Your task to perform on an android device: check google app version Image 0: 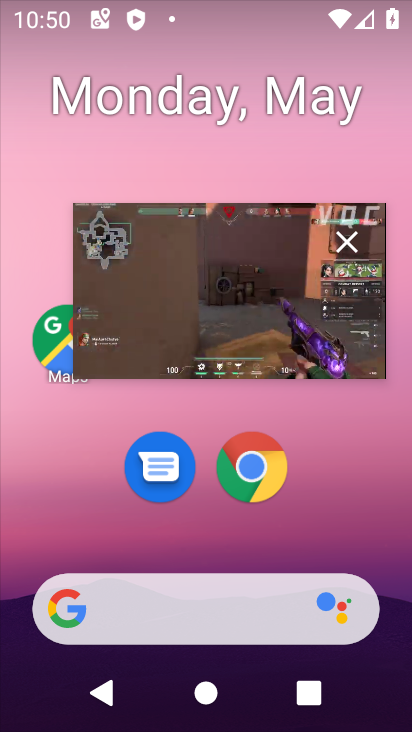
Step 0: click (344, 236)
Your task to perform on an android device: check google app version Image 1: 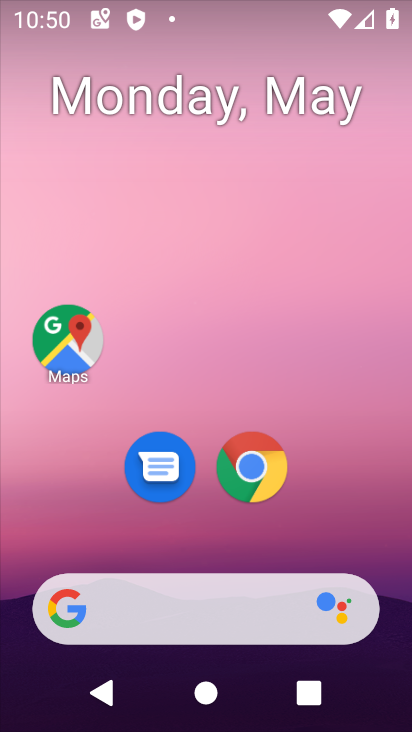
Step 1: drag from (383, 711) to (378, 208)
Your task to perform on an android device: check google app version Image 2: 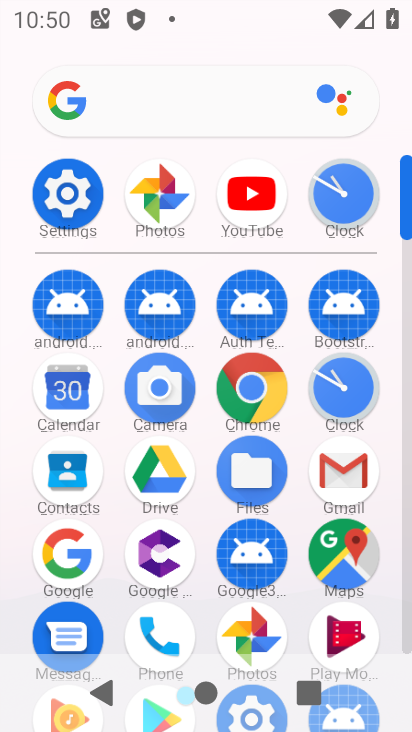
Step 2: drag from (208, 454) to (194, 257)
Your task to perform on an android device: check google app version Image 3: 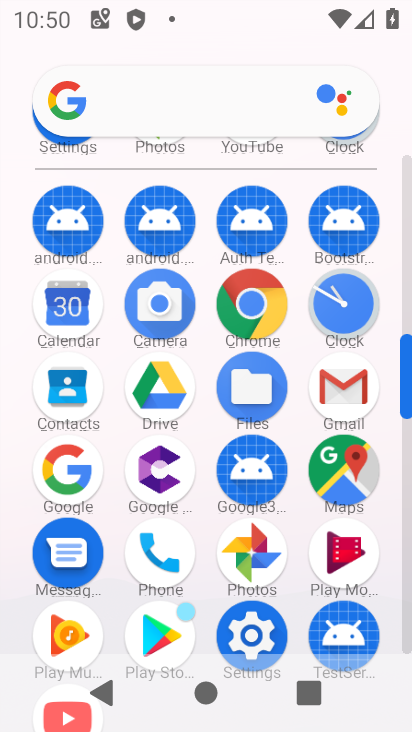
Step 3: click (75, 478)
Your task to perform on an android device: check google app version Image 4: 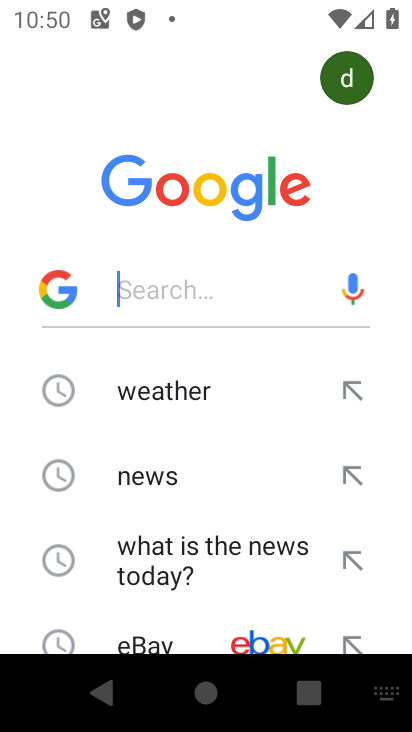
Step 4: drag from (222, 607) to (257, 286)
Your task to perform on an android device: check google app version Image 5: 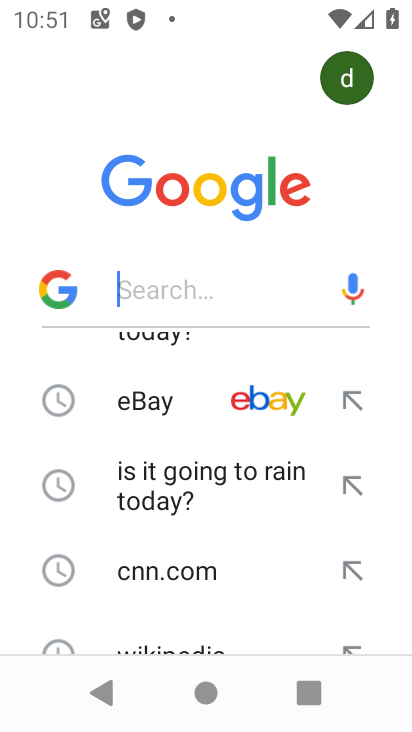
Step 5: drag from (303, 599) to (287, 352)
Your task to perform on an android device: check google app version Image 6: 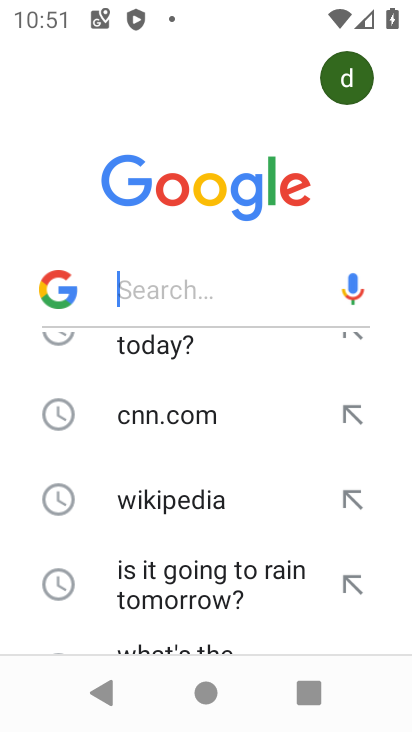
Step 6: drag from (280, 366) to (252, 615)
Your task to perform on an android device: check google app version Image 7: 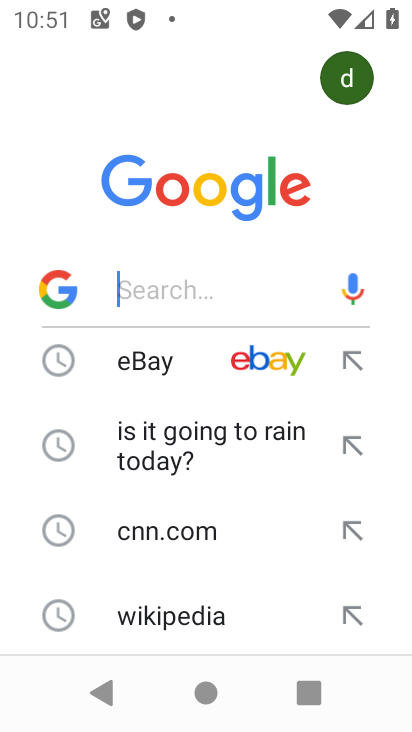
Step 7: drag from (230, 361) to (228, 556)
Your task to perform on an android device: check google app version Image 8: 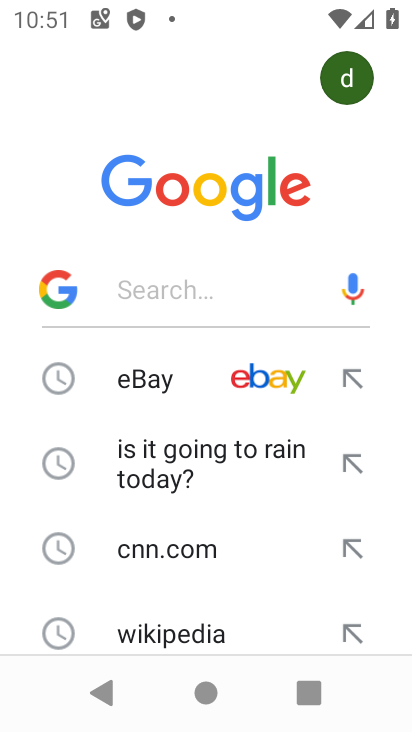
Step 8: press back button
Your task to perform on an android device: check google app version Image 9: 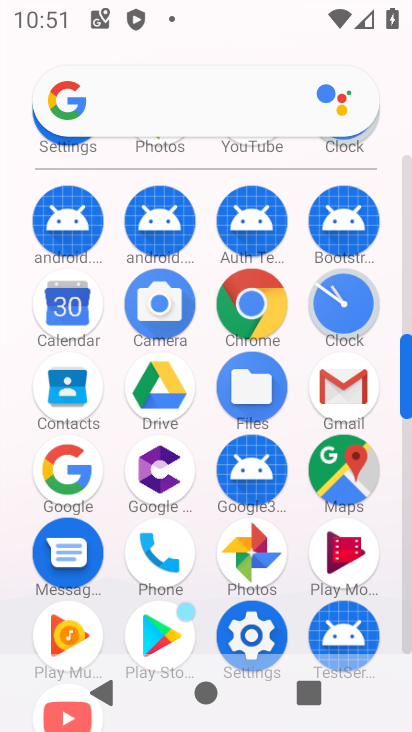
Step 9: click (64, 464)
Your task to perform on an android device: check google app version Image 10: 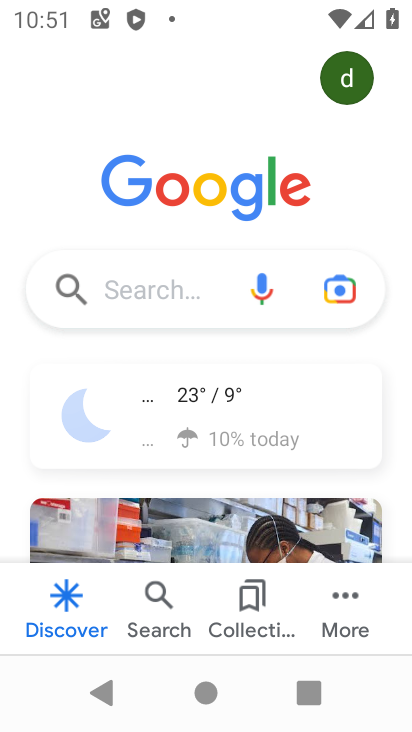
Step 10: click (336, 612)
Your task to perform on an android device: check google app version Image 11: 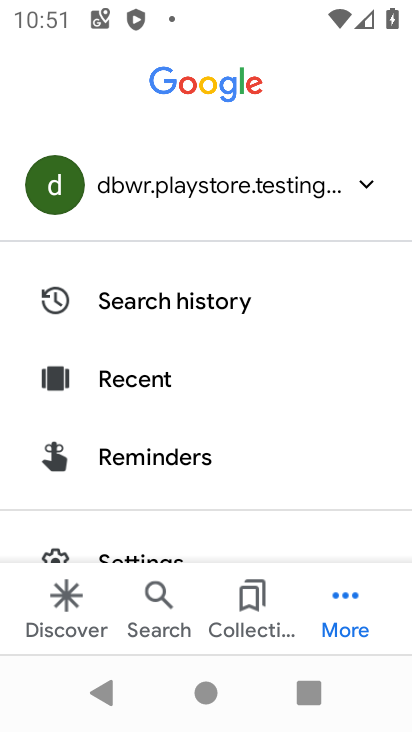
Step 11: drag from (309, 522) to (330, 236)
Your task to perform on an android device: check google app version Image 12: 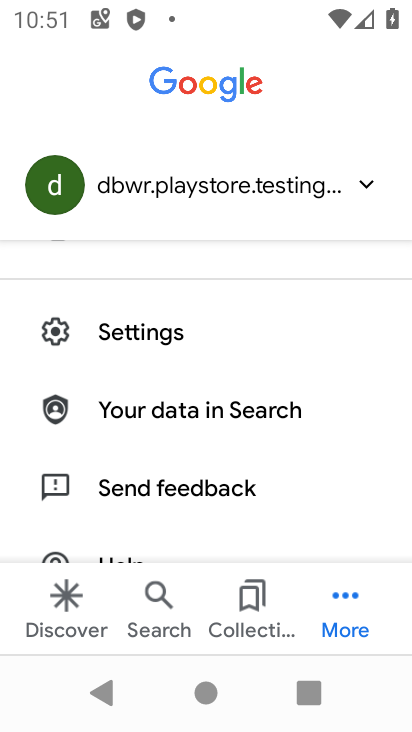
Step 12: click (116, 331)
Your task to perform on an android device: check google app version Image 13: 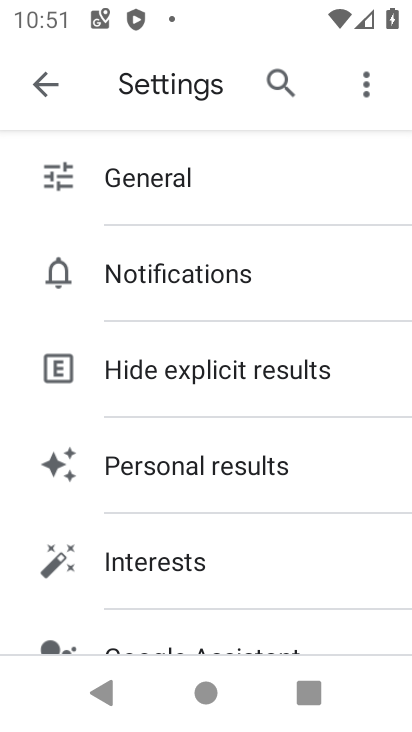
Step 13: drag from (219, 608) to (251, 270)
Your task to perform on an android device: check google app version Image 14: 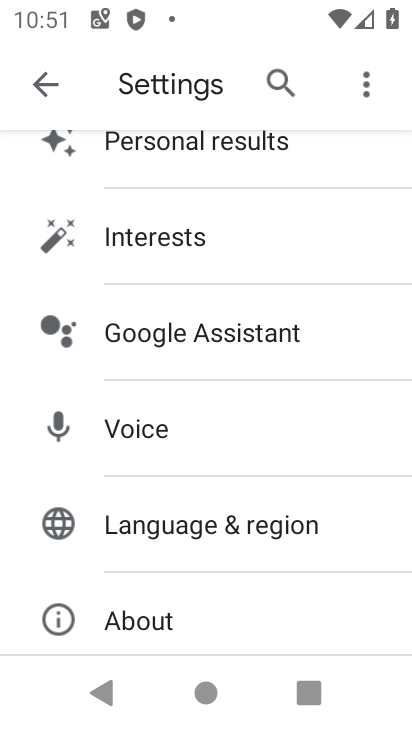
Step 14: click (137, 615)
Your task to perform on an android device: check google app version Image 15: 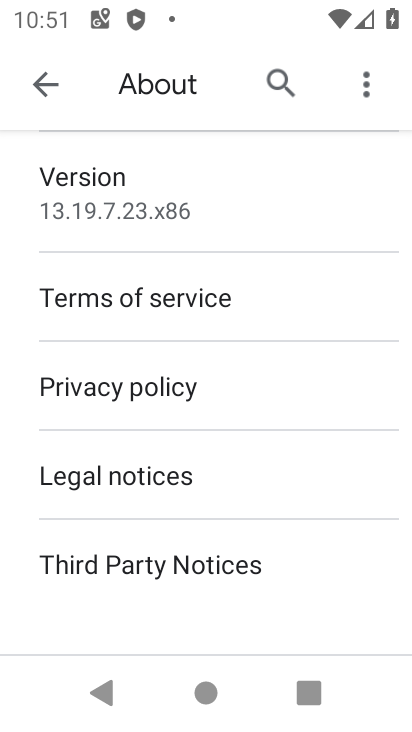
Step 15: click (92, 193)
Your task to perform on an android device: check google app version Image 16: 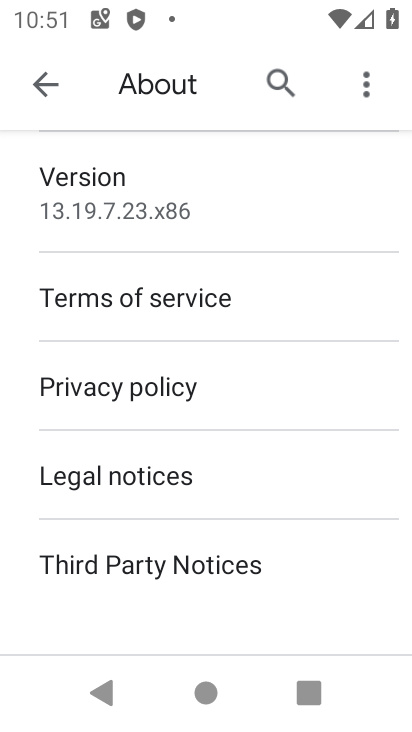
Step 16: task complete